Your task to perform on an android device: open app "YouTube Kids" (install if not already installed) and go to login screen Image 0: 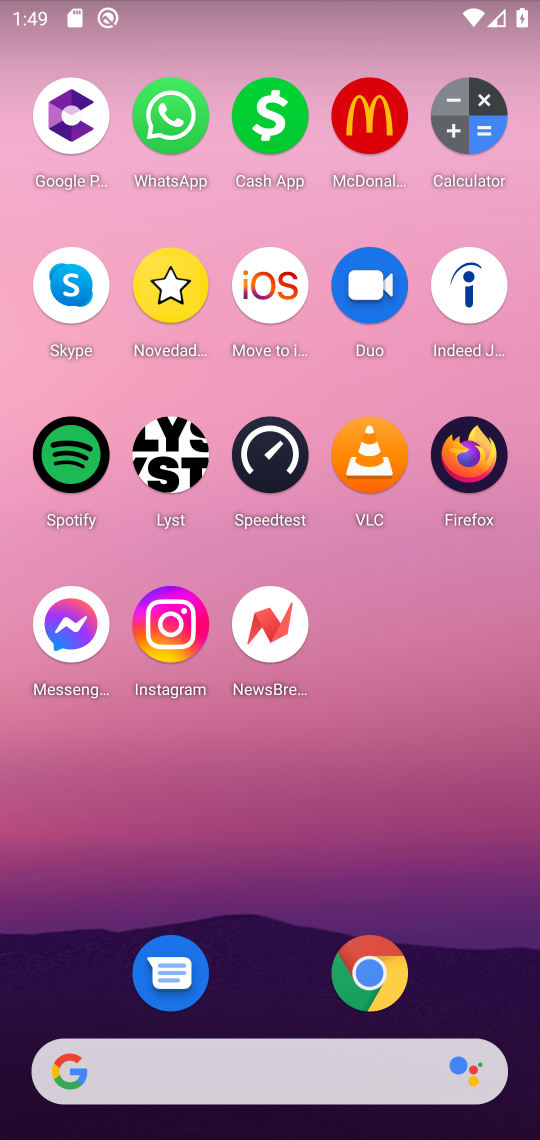
Step 0: drag from (272, 1031) to (261, 259)
Your task to perform on an android device: open app "YouTube Kids" (install if not already installed) and go to login screen Image 1: 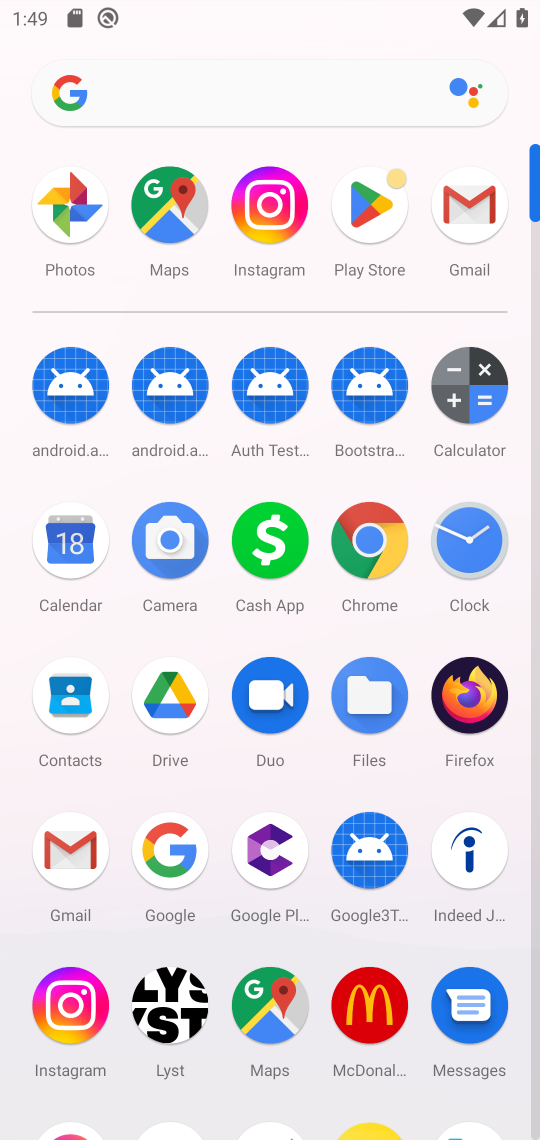
Step 1: click (373, 249)
Your task to perform on an android device: open app "YouTube Kids" (install if not already installed) and go to login screen Image 2: 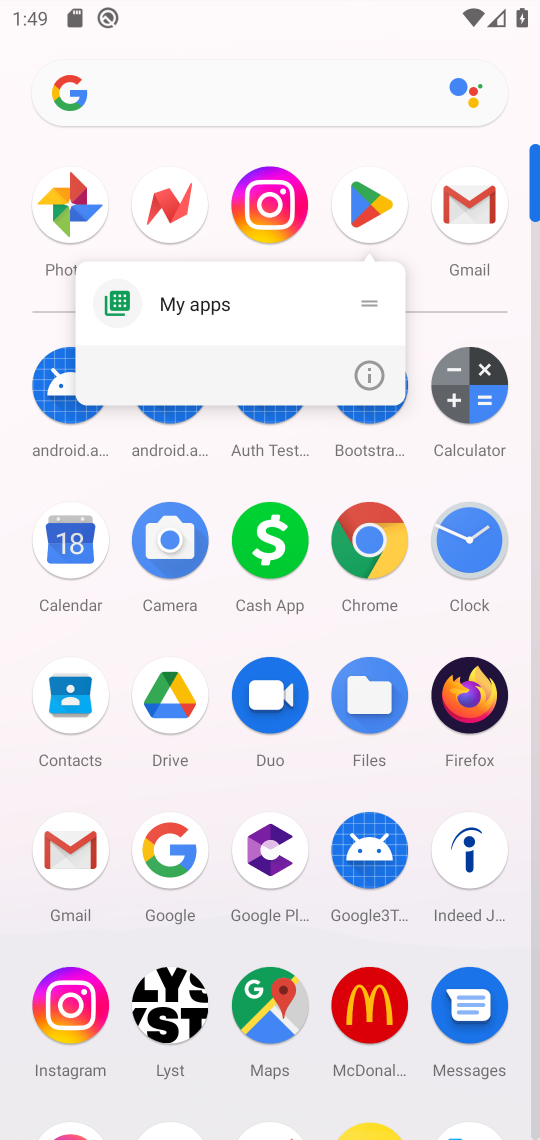
Step 2: click (373, 249)
Your task to perform on an android device: open app "YouTube Kids" (install if not already installed) and go to login screen Image 3: 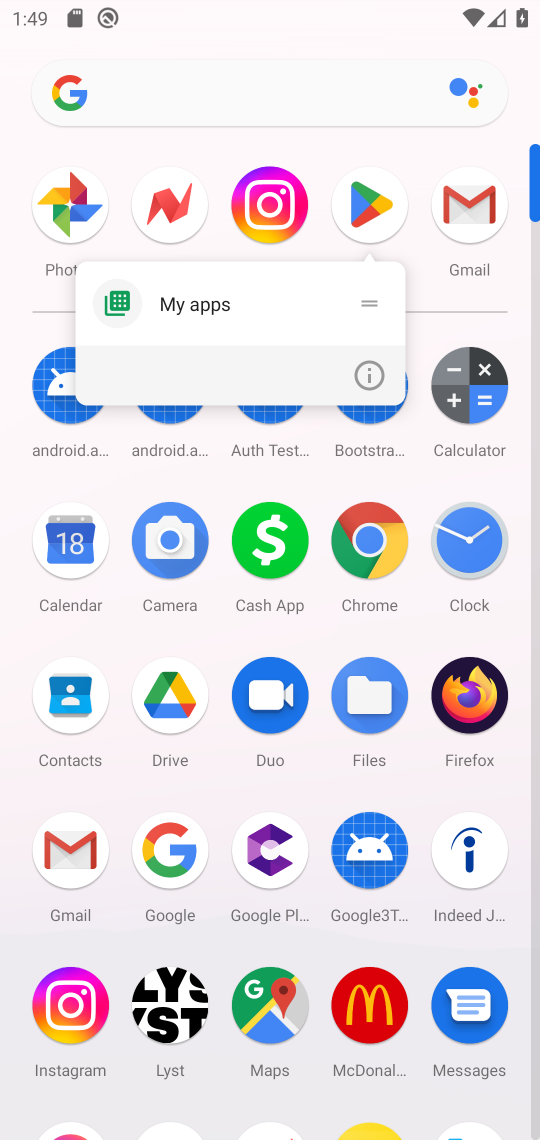
Step 3: click (371, 230)
Your task to perform on an android device: open app "YouTube Kids" (install if not already installed) and go to login screen Image 4: 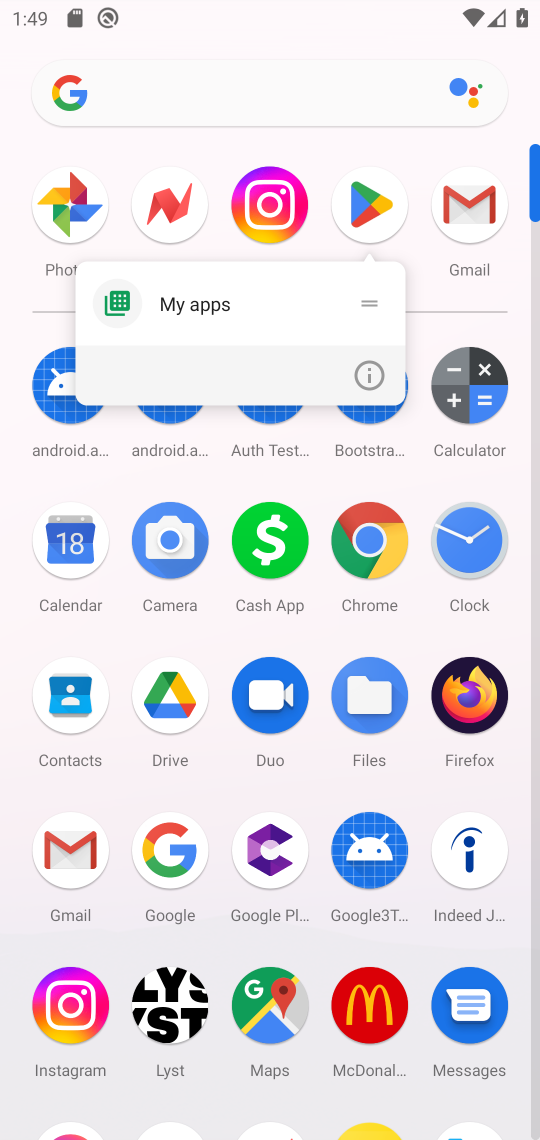
Step 4: click (371, 230)
Your task to perform on an android device: open app "YouTube Kids" (install if not already installed) and go to login screen Image 5: 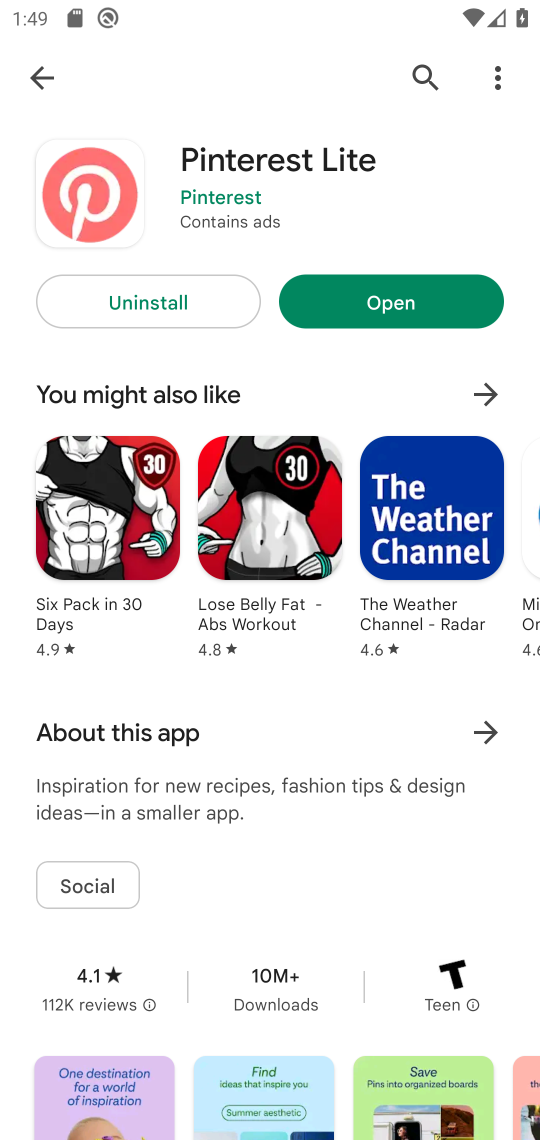
Step 5: click (417, 95)
Your task to perform on an android device: open app "YouTube Kids" (install if not already installed) and go to login screen Image 6: 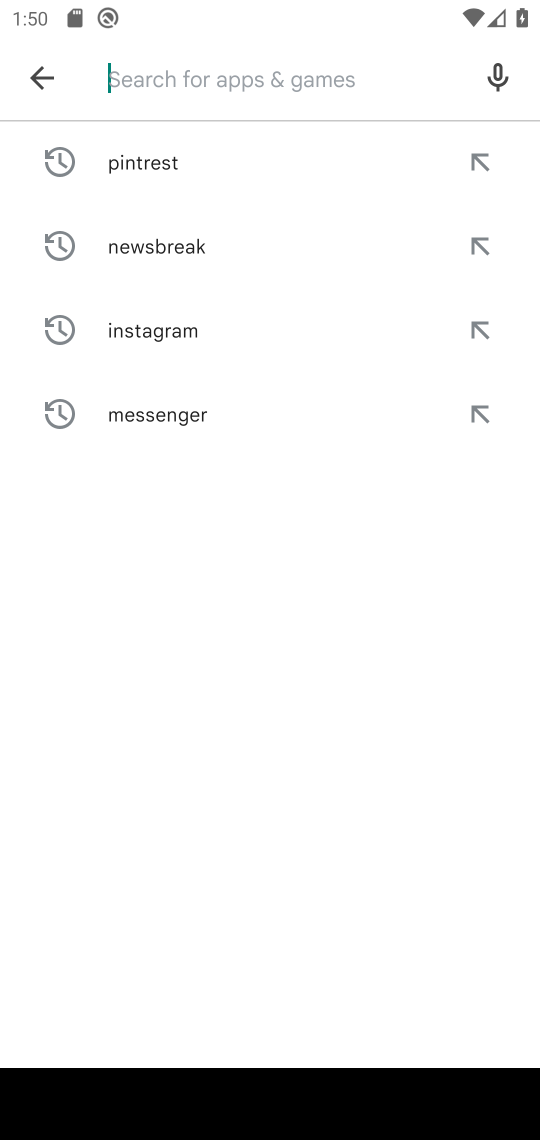
Step 6: type "youtube kid"
Your task to perform on an android device: open app "YouTube Kids" (install if not already installed) and go to login screen Image 7: 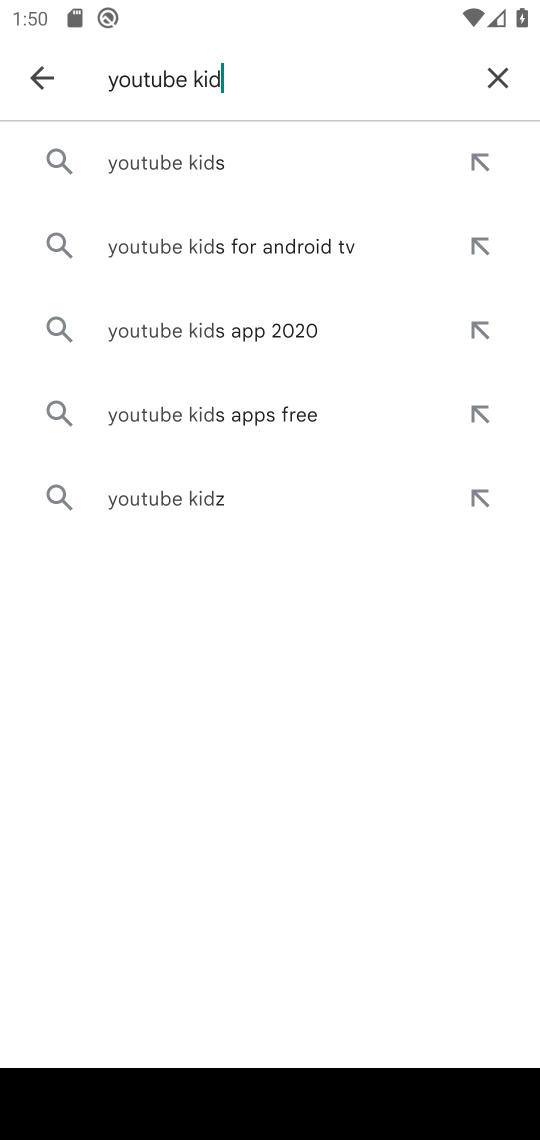
Step 7: click (200, 146)
Your task to perform on an android device: open app "YouTube Kids" (install if not already installed) and go to login screen Image 8: 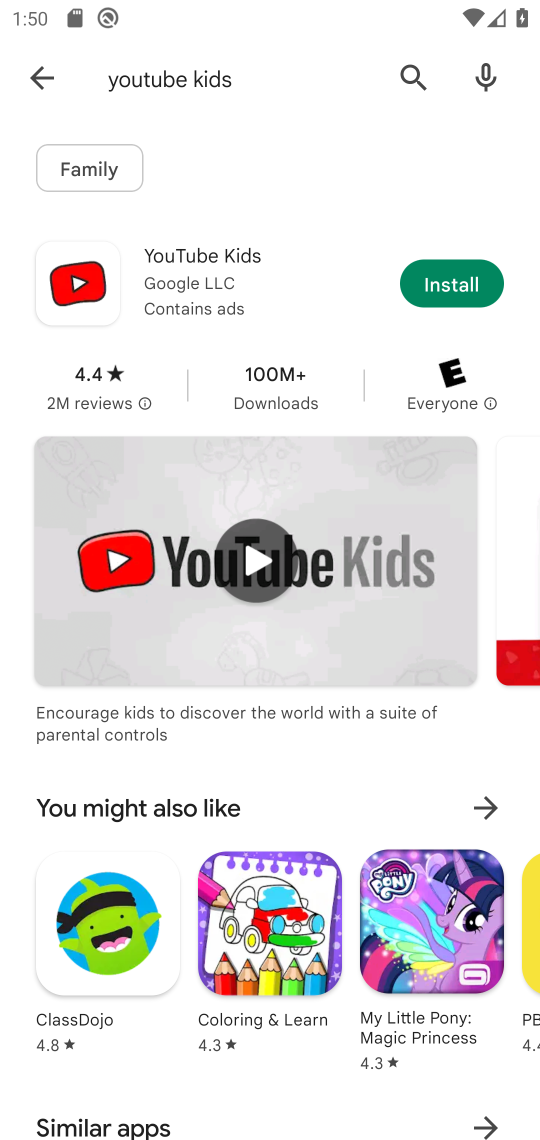
Step 8: click (455, 306)
Your task to perform on an android device: open app "YouTube Kids" (install if not already installed) and go to login screen Image 9: 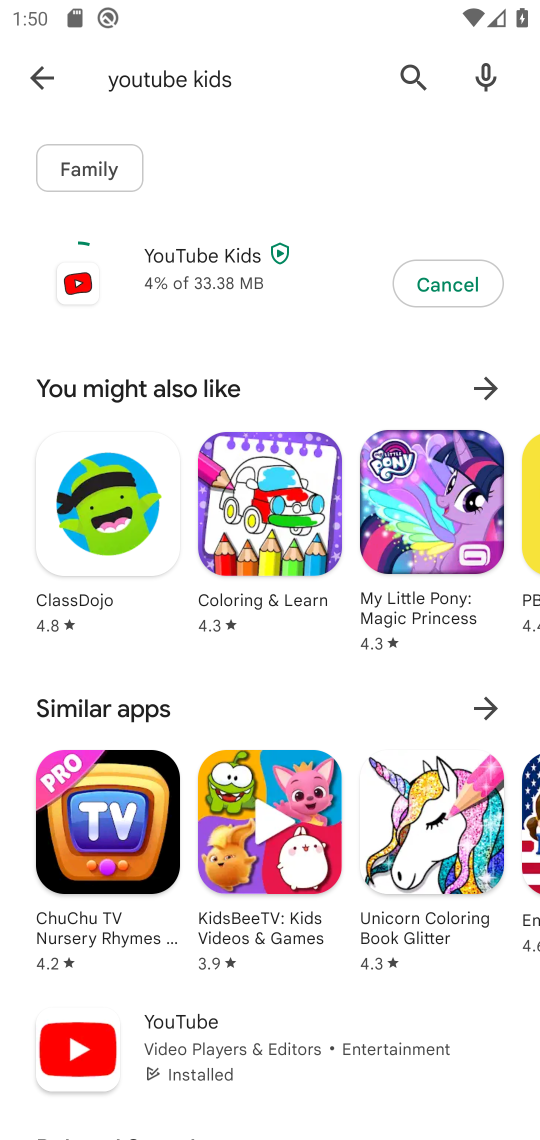
Step 9: task complete